Your task to perform on an android device: change the clock display to show seconds Image 0: 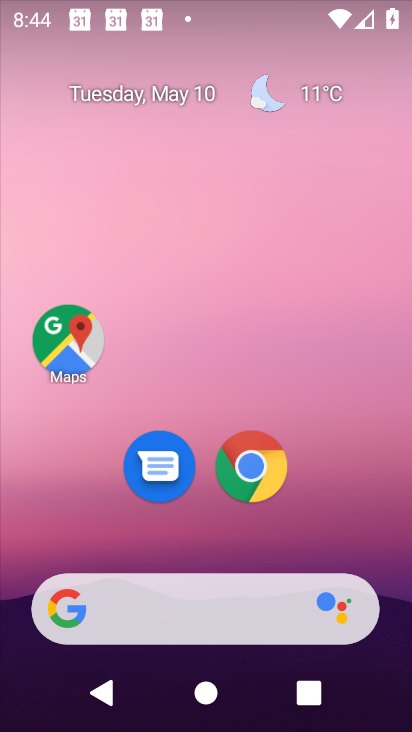
Step 0: drag from (212, 543) to (290, 5)
Your task to perform on an android device: change the clock display to show seconds Image 1: 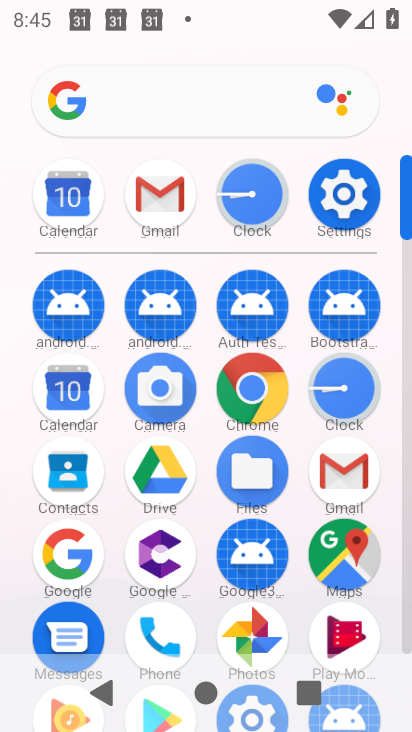
Step 1: click (339, 402)
Your task to perform on an android device: change the clock display to show seconds Image 2: 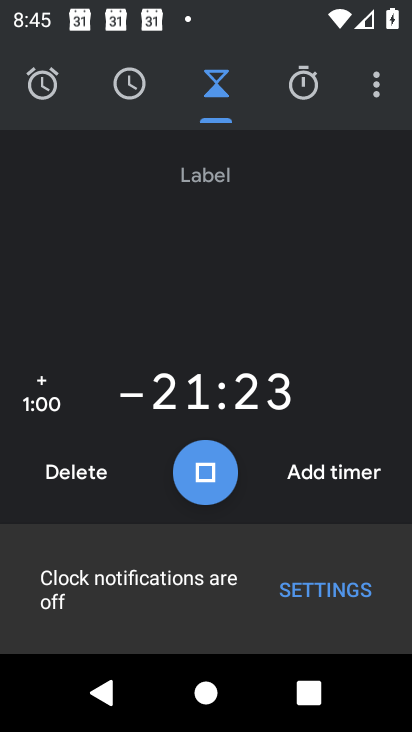
Step 2: click (375, 85)
Your task to perform on an android device: change the clock display to show seconds Image 3: 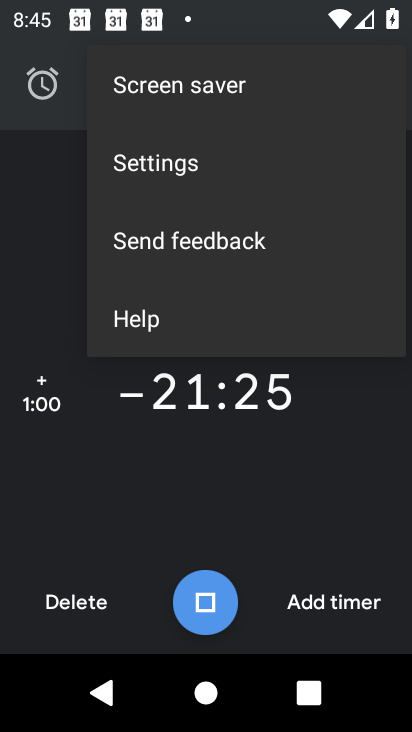
Step 3: click (202, 165)
Your task to perform on an android device: change the clock display to show seconds Image 4: 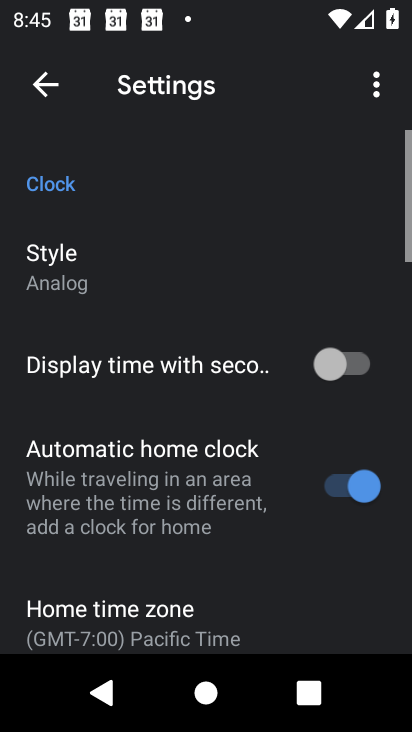
Step 4: click (91, 275)
Your task to perform on an android device: change the clock display to show seconds Image 5: 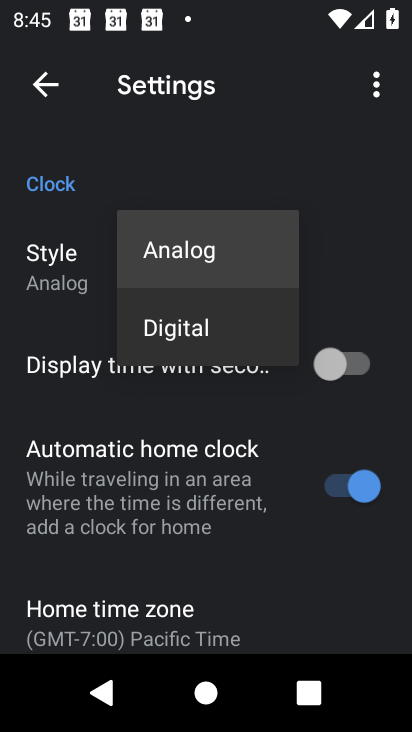
Step 5: click (164, 323)
Your task to perform on an android device: change the clock display to show seconds Image 6: 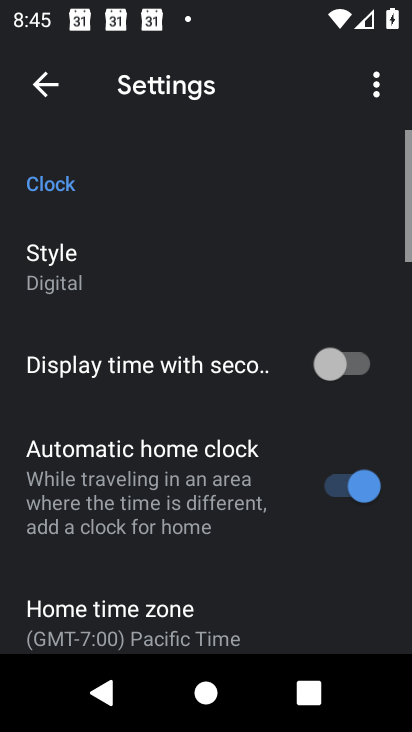
Step 6: click (339, 359)
Your task to perform on an android device: change the clock display to show seconds Image 7: 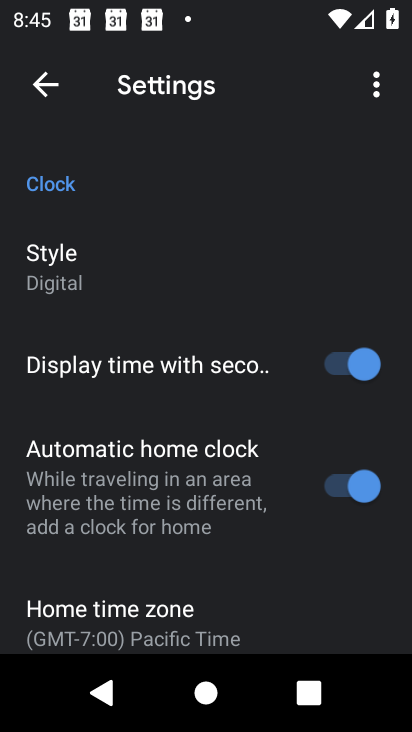
Step 7: task complete